Your task to perform on an android device: toggle javascript in the chrome app Image 0: 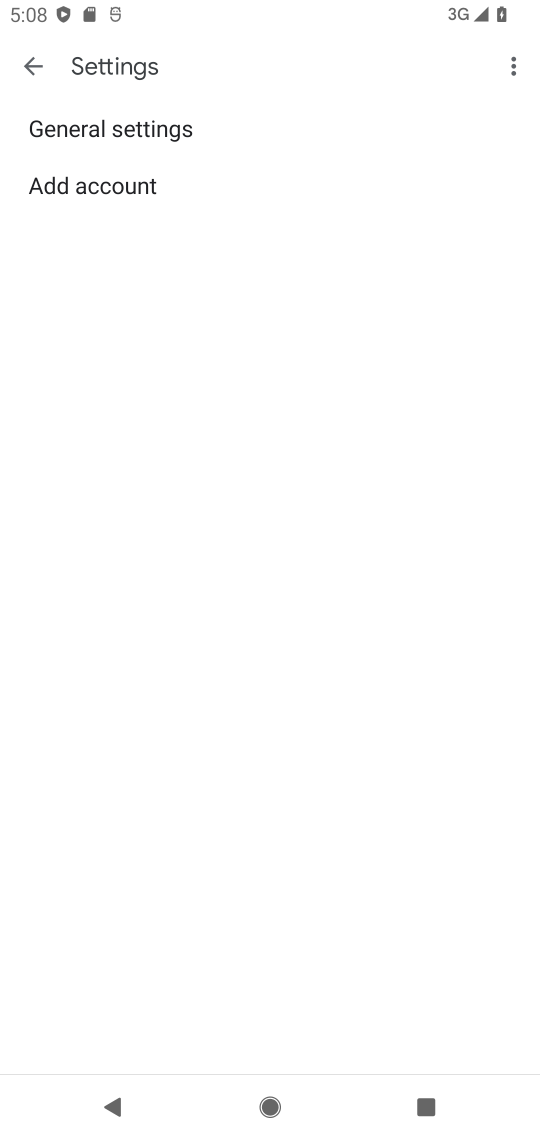
Step 0: press home button
Your task to perform on an android device: toggle javascript in the chrome app Image 1: 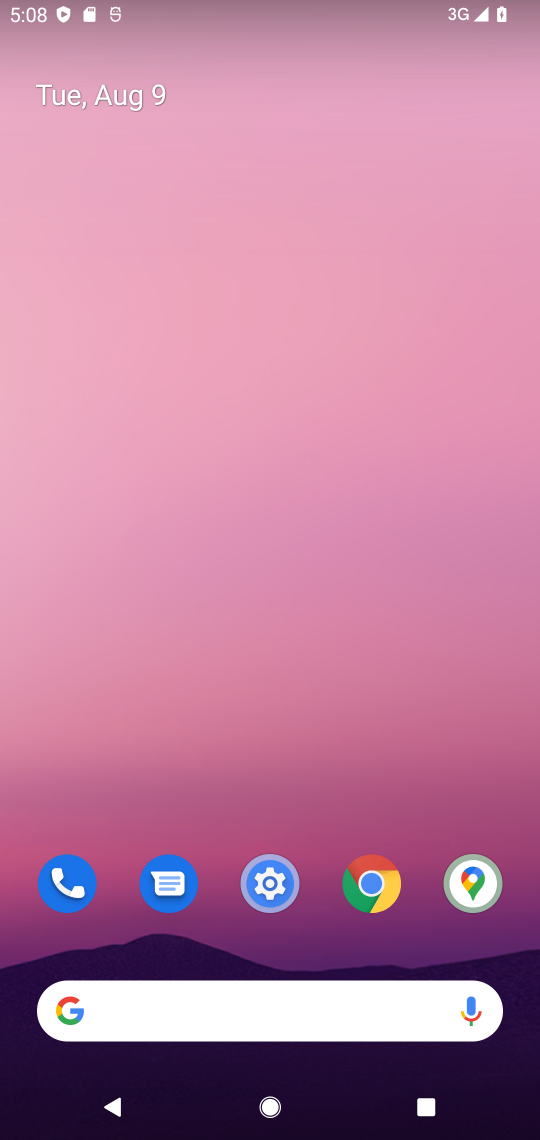
Step 1: click (366, 886)
Your task to perform on an android device: toggle javascript in the chrome app Image 2: 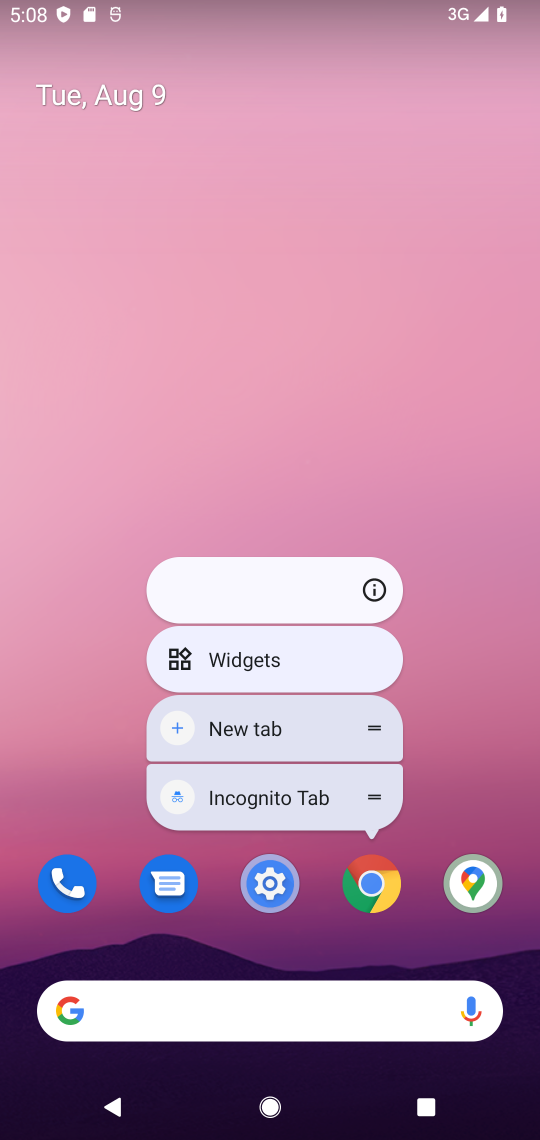
Step 2: click (358, 902)
Your task to perform on an android device: toggle javascript in the chrome app Image 3: 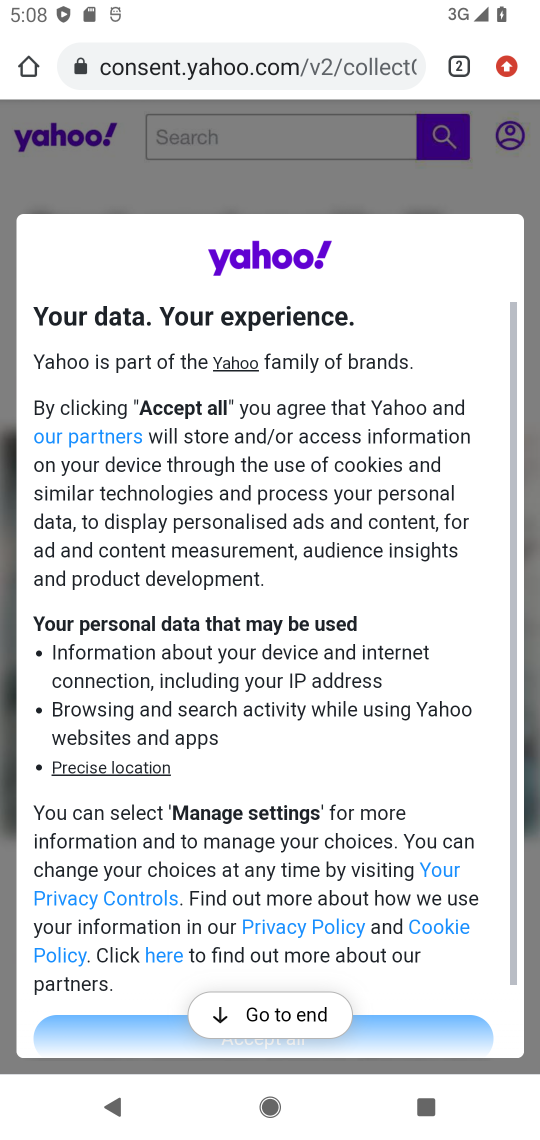
Step 3: click (519, 75)
Your task to perform on an android device: toggle javascript in the chrome app Image 4: 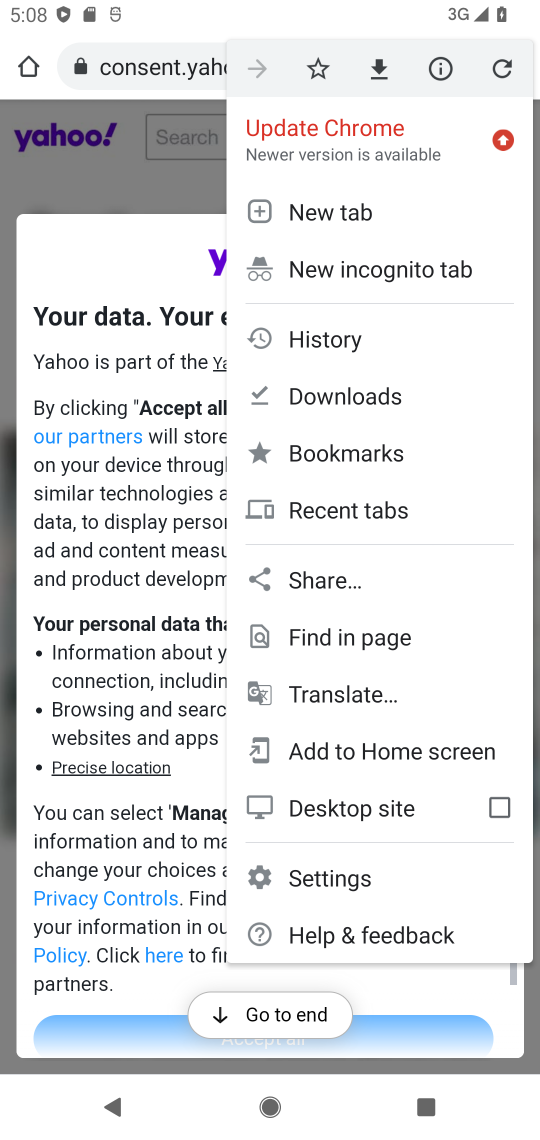
Step 4: click (342, 872)
Your task to perform on an android device: toggle javascript in the chrome app Image 5: 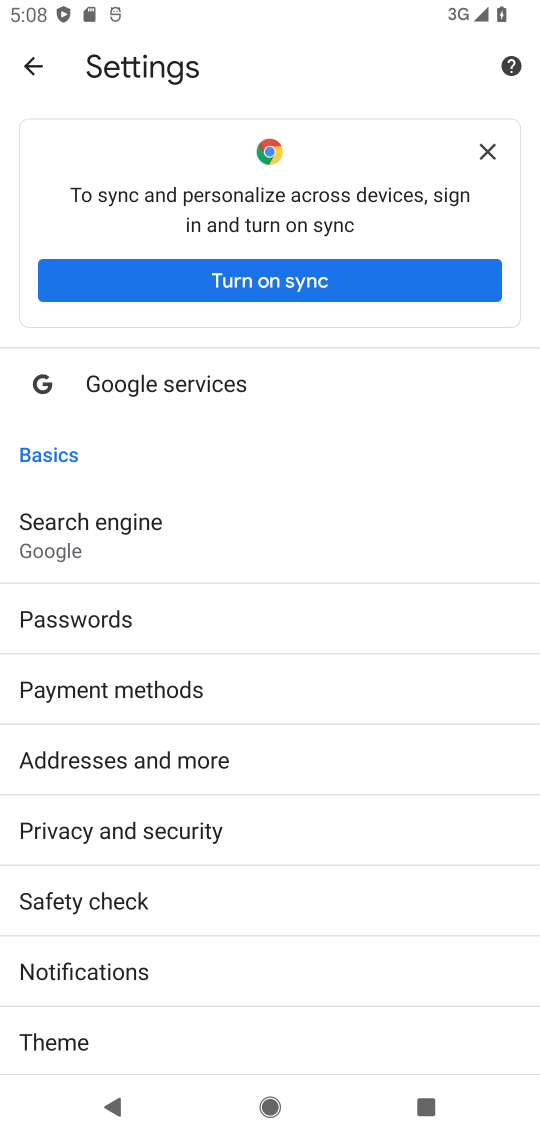
Step 5: drag from (282, 891) to (312, 493)
Your task to perform on an android device: toggle javascript in the chrome app Image 6: 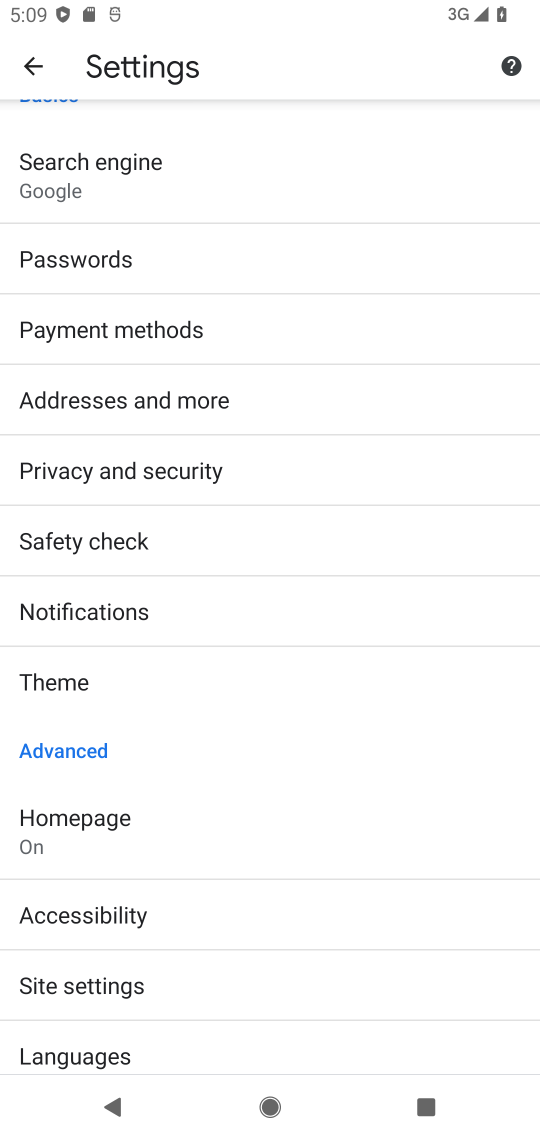
Step 6: click (160, 979)
Your task to perform on an android device: toggle javascript in the chrome app Image 7: 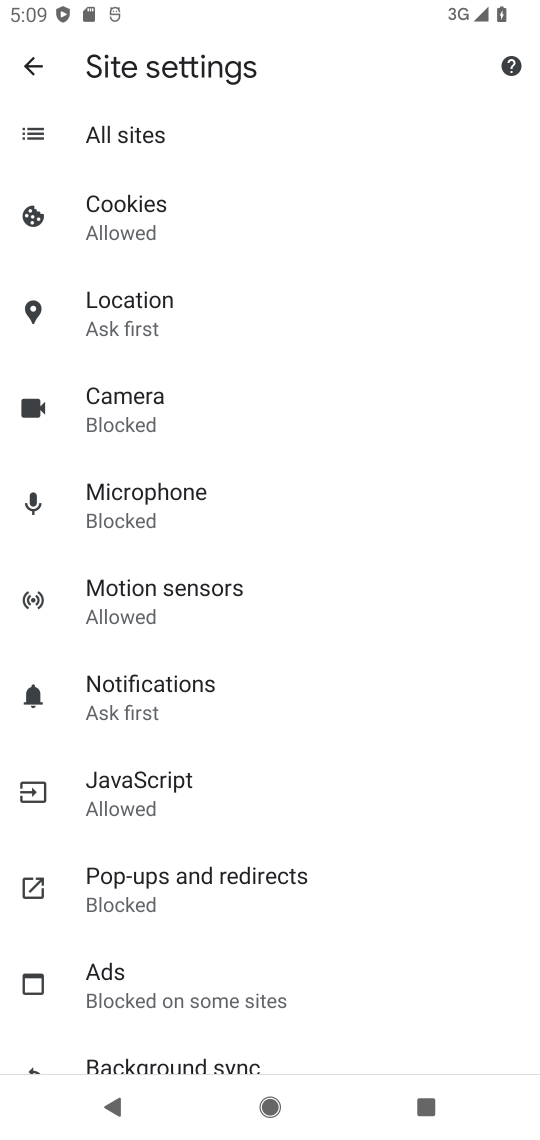
Step 7: click (206, 795)
Your task to perform on an android device: toggle javascript in the chrome app Image 8: 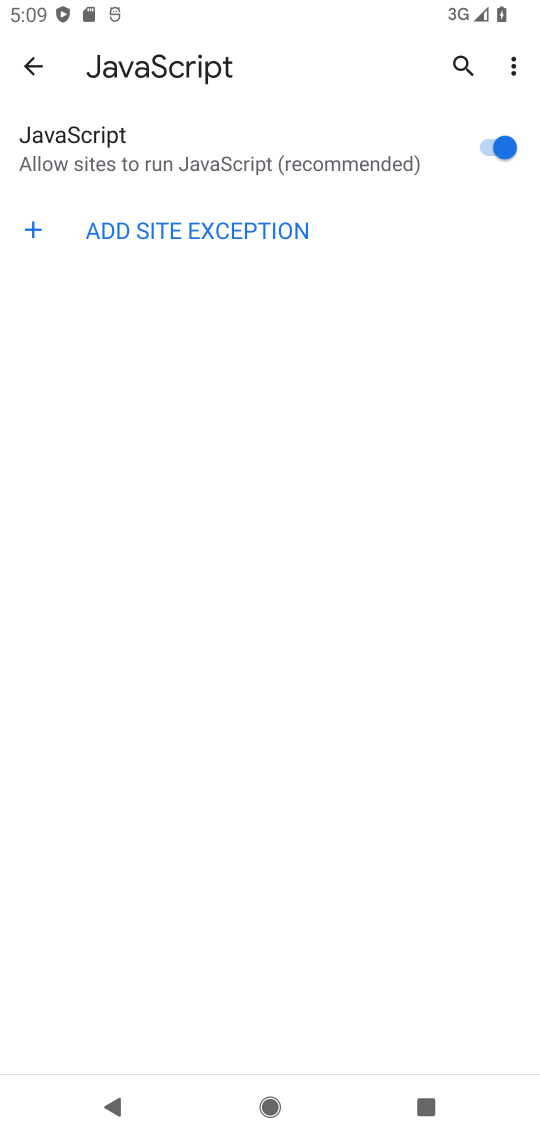
Step 8: task complete